Your task to perform on an android device: Search for pizza restaurants on Maps Image 0: 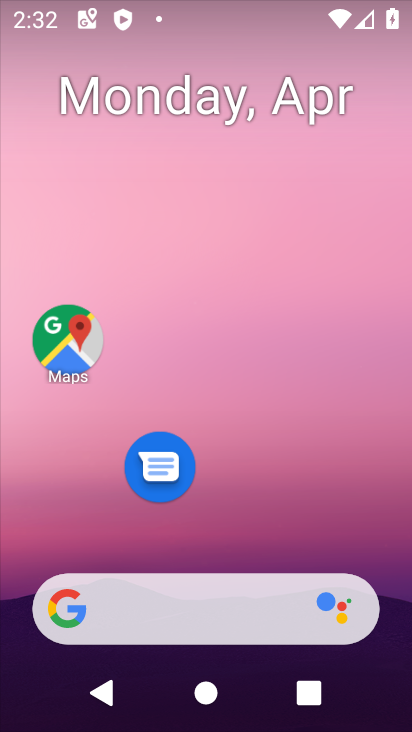
Step 0: drag from (257, 537) to (358, 47)
Your task to perform on an android device: Search for pizza restaurants on Maps Image 1: 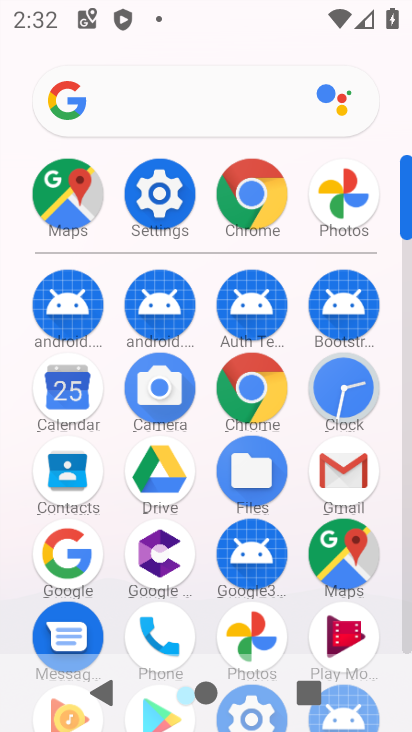
Step 1: click (64, 176)
Your task to perform on an android device: Search for pizza restaurants on Maps Image 2: 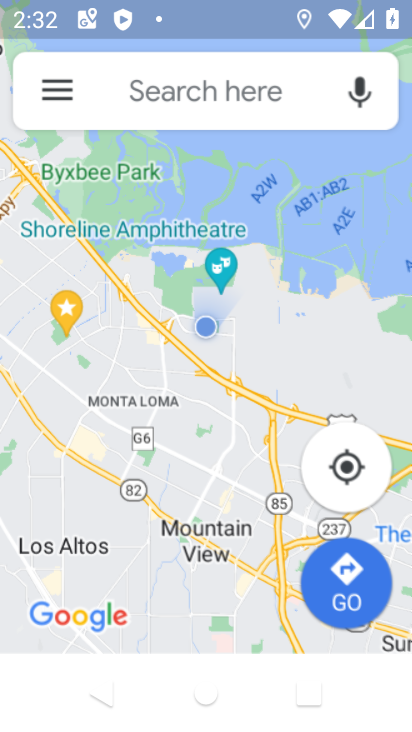
Step 2: click (170, 95)
Your task to perform on an android device: Search for pizza restaurants on Maps Image 3: 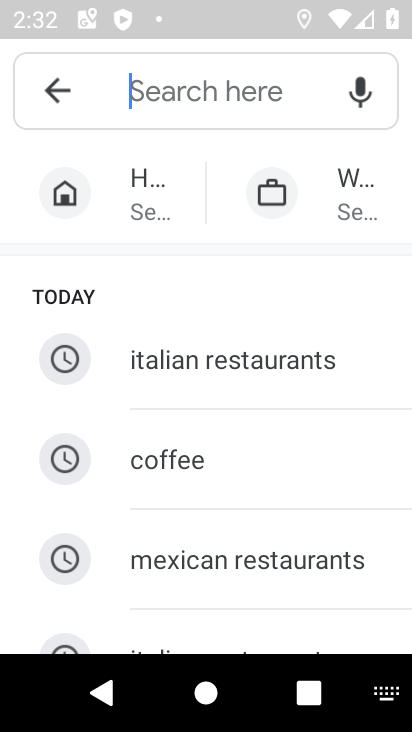
Step 3: type "pizza restaurants"
Your task to perform on an android device: Search for pizza restaurants on Maps Image 4: 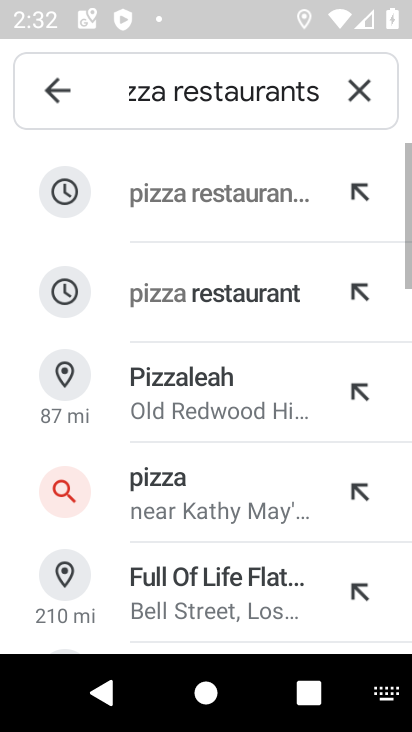
Step 4: click (249, 197)
Your task to perform on an android device: Search for pizza restaurants on Maps Image 5: 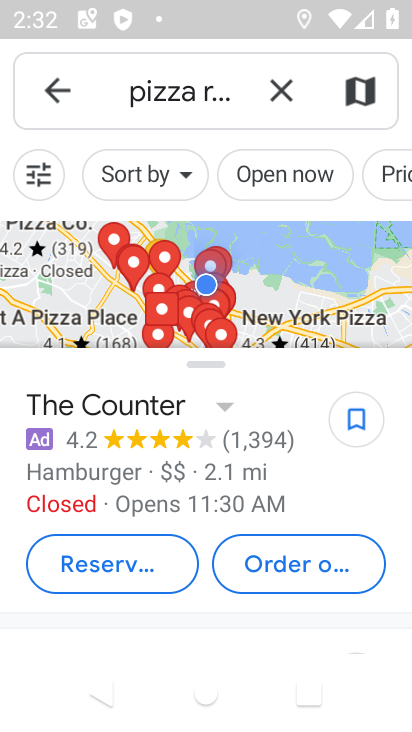
Step 5: task complete